Your task to perform on an android device: Go to network settings Image 0: 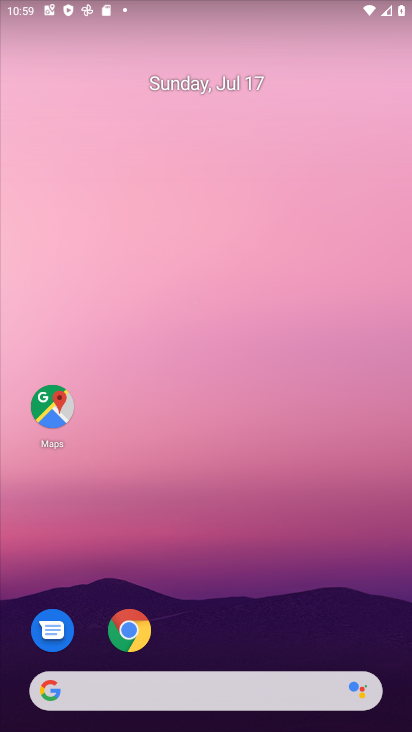
Step 0: drag from (265, 607) to (265, 123)
Your task to perform on an android device: Go to network settings Image 1: 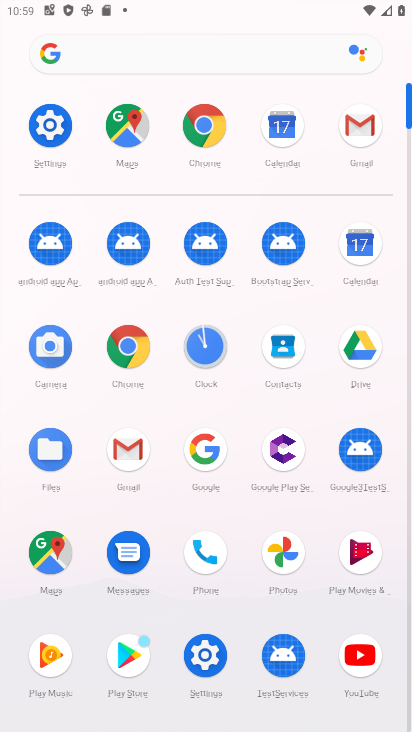
Step 1: click (65, 155)
Your task to perform on an android device: Go to network settings Image 2: 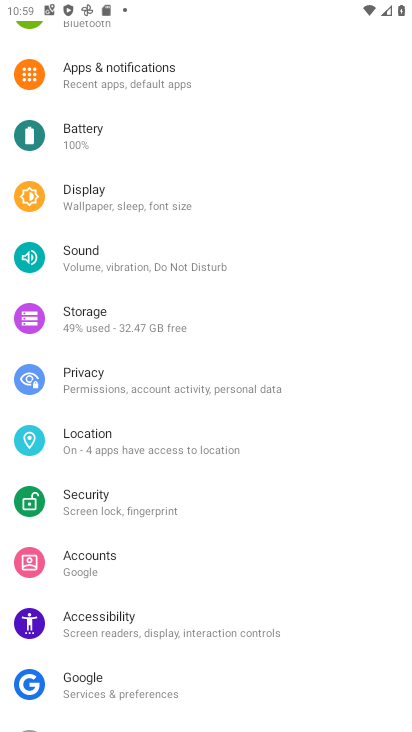
Step 2: drag from (158, 50) to (172, 311)
Your task to perform on an android device: Go to network settings Image 3: 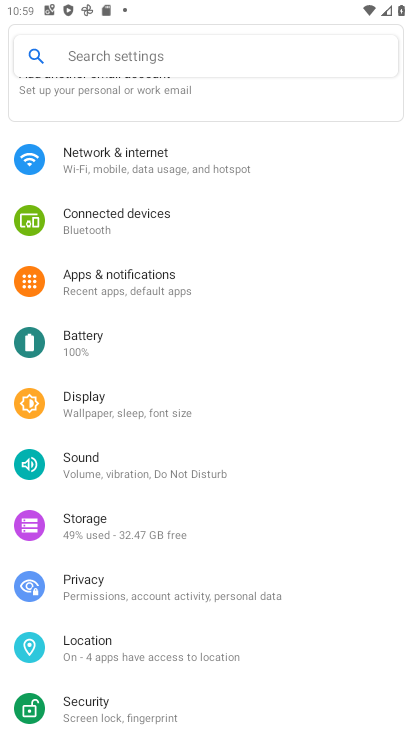
Step 3: click (202, 165)
Your task to perform on an android device: Go to network settings Image 4: 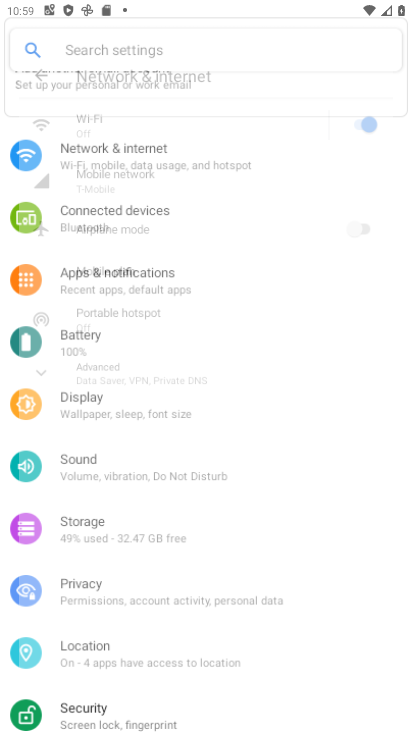
Step 4: task complete